Your task to perform on an android device: empty trash in the gmail app Image 0: 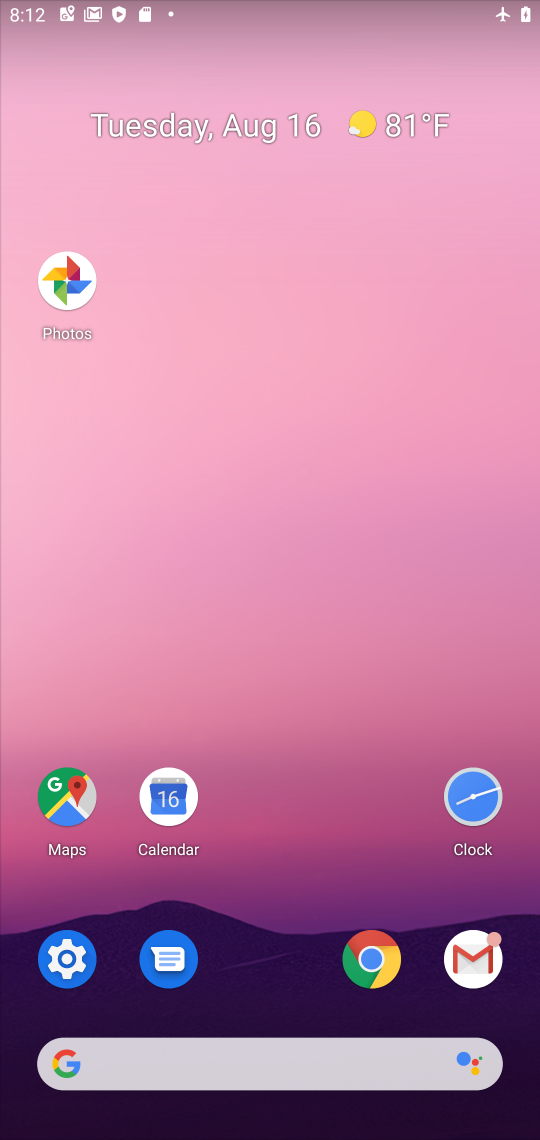
Step 0: click (473, 958)
Your task to perform on an android device: empty trash in the gmail app Image 1: 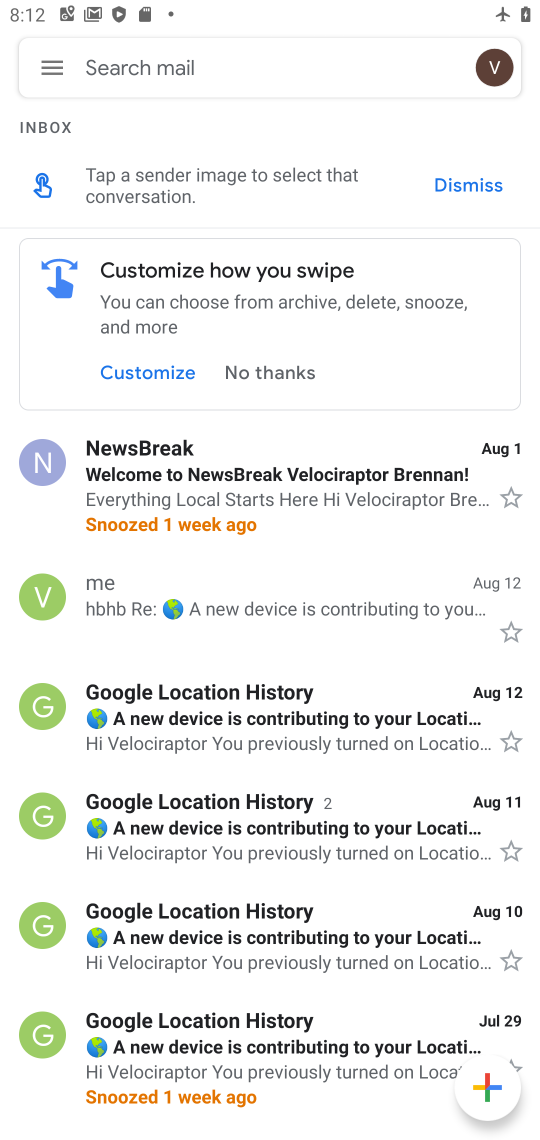
Step 1: click (51, 69)
Your task to perform on an android device: empty trash in the gmail app Image 2: 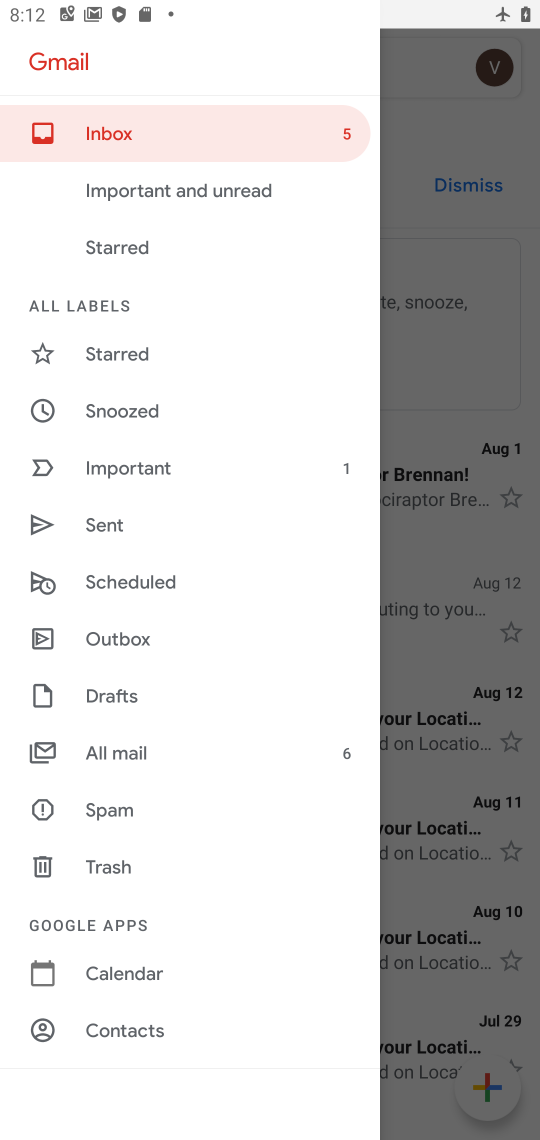
Step 2: click (116, 866)
Your task to perform on an android device: empty trash in the gmail app Image 3: 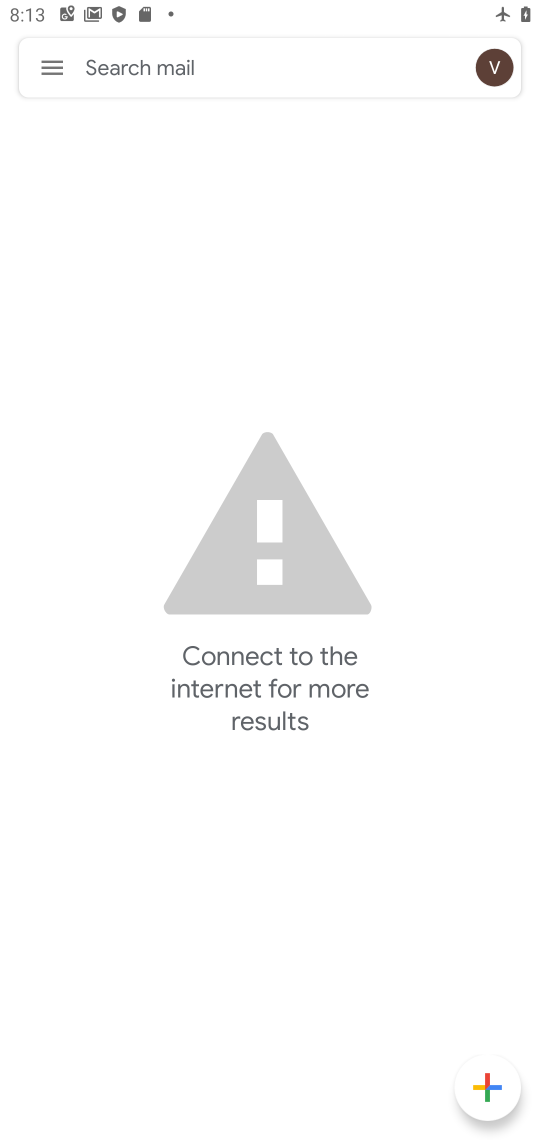
Step 3: task complete